Your task to perform on an android device: star an email in the gmail app Image 0: 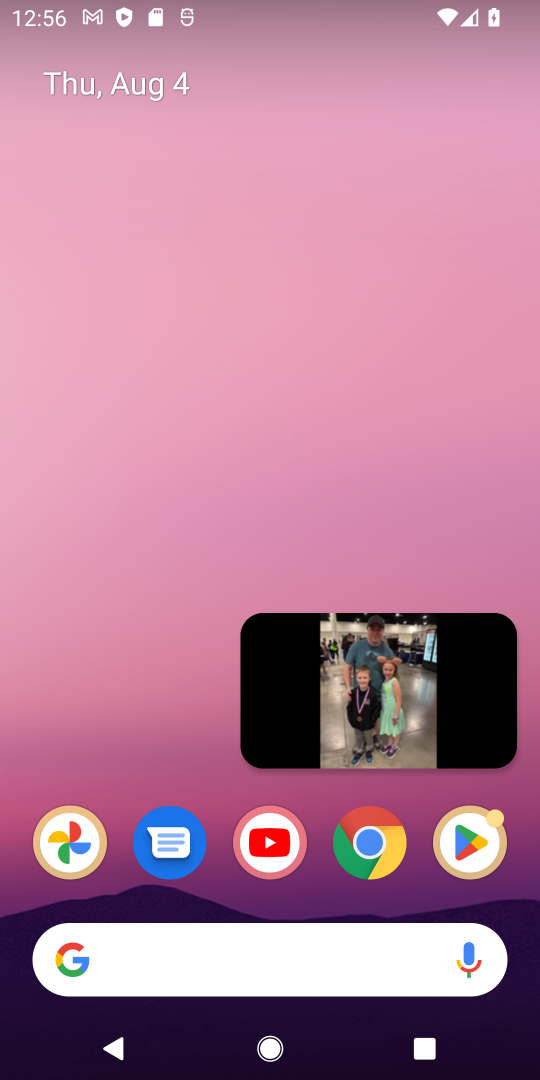
Step 0: drag from (126, 789) to (194, 33)
Your task to perform on an android device: star an email in the gmail app Image 1: 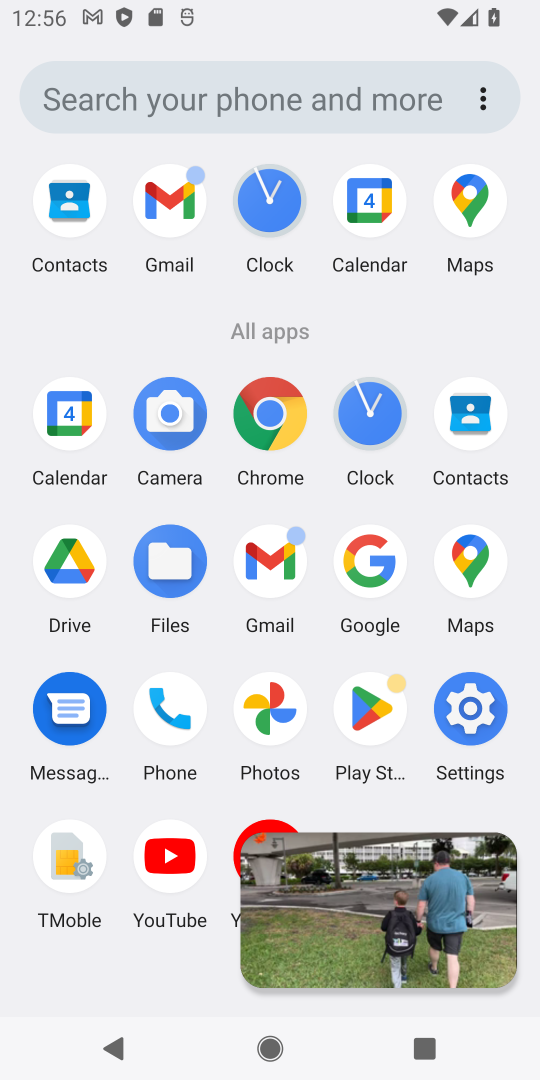
Step 1: click (177, 206)
Your task to perform on an android device: star an email in the gmail app Image 2: 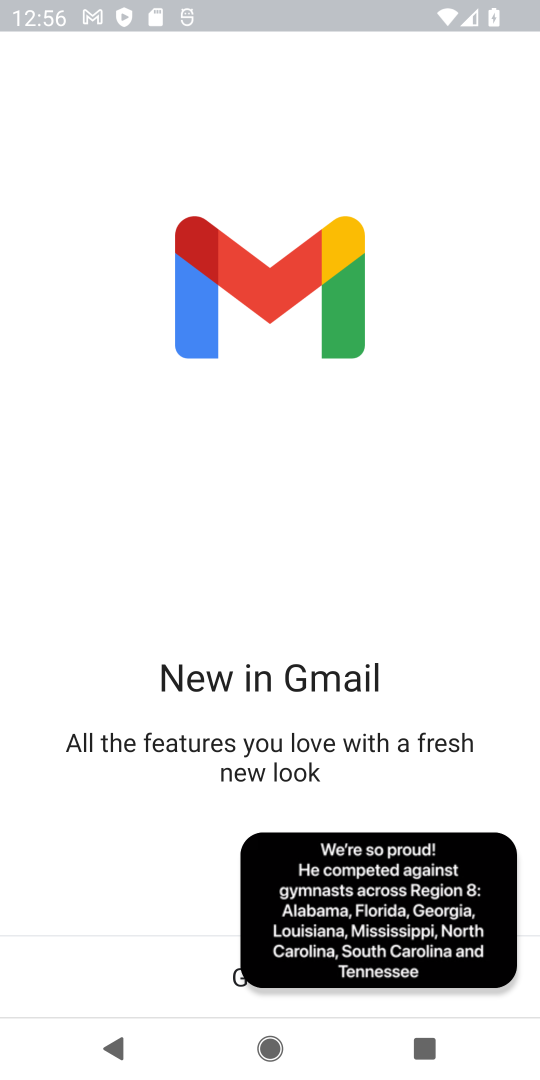
Step 2: click (59, 984)
Your task to perform on an android device: star an email in the gmail app Image 3: 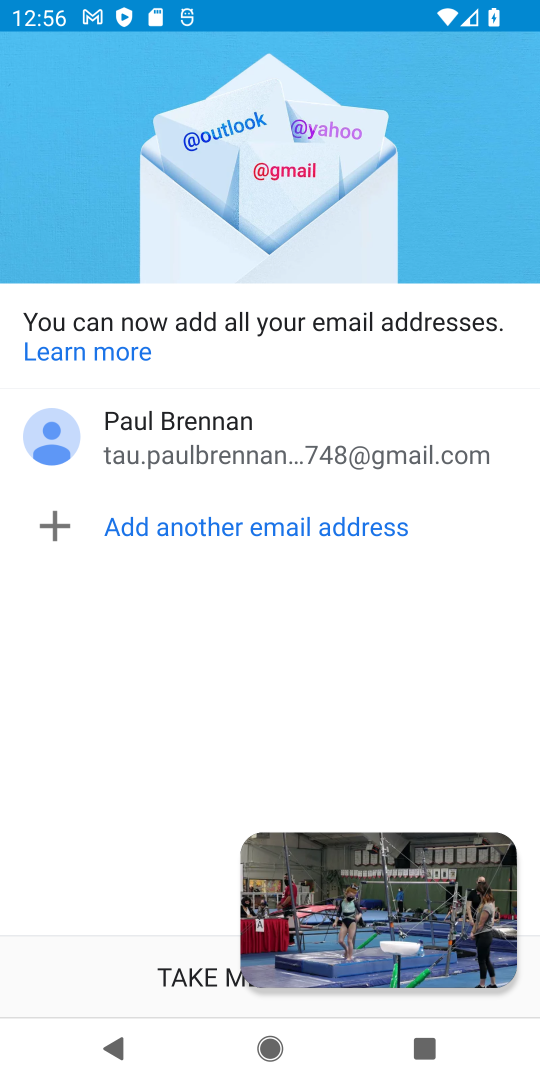
Step 3: click (136, 964)
Your task to perform on an android device: star an email in the gmail app Image 4: 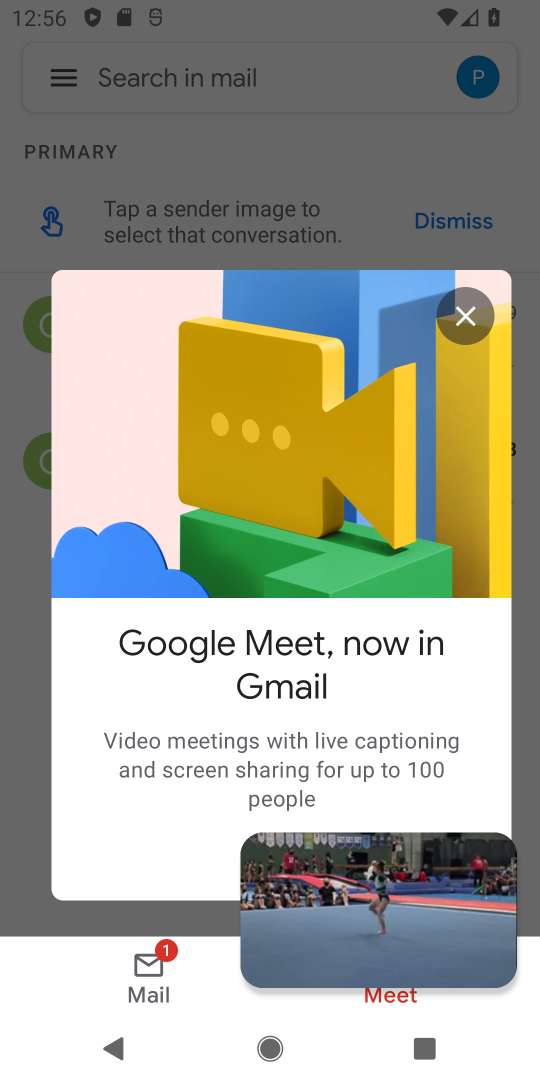
Step 4: click (469, 321)
Your task to perform on an android device: star an email in the gmail app Image 5: 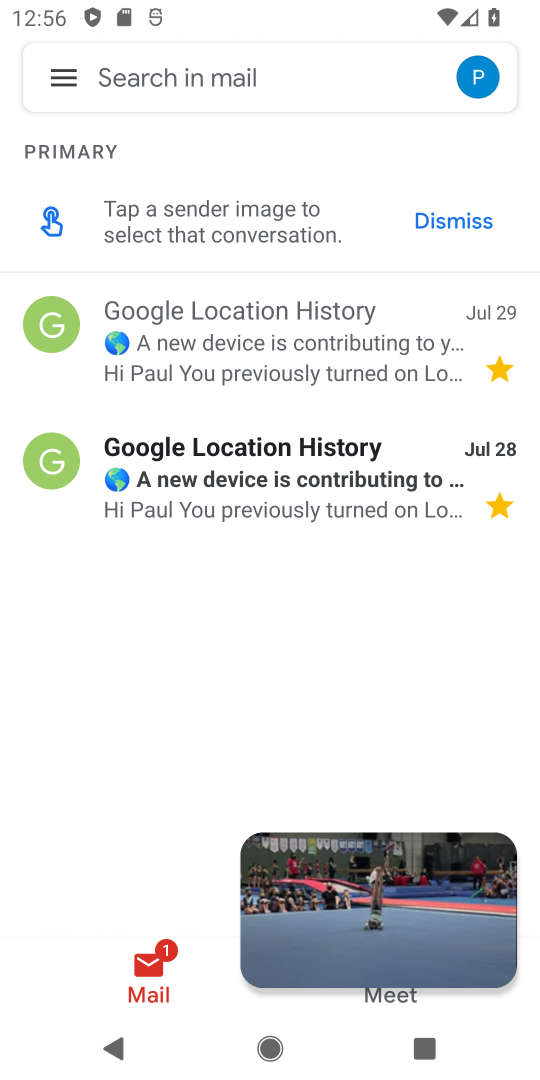
Step 5: click (63, 69)
Your task to perform on an android device: star an email in the gmail app Image 6: 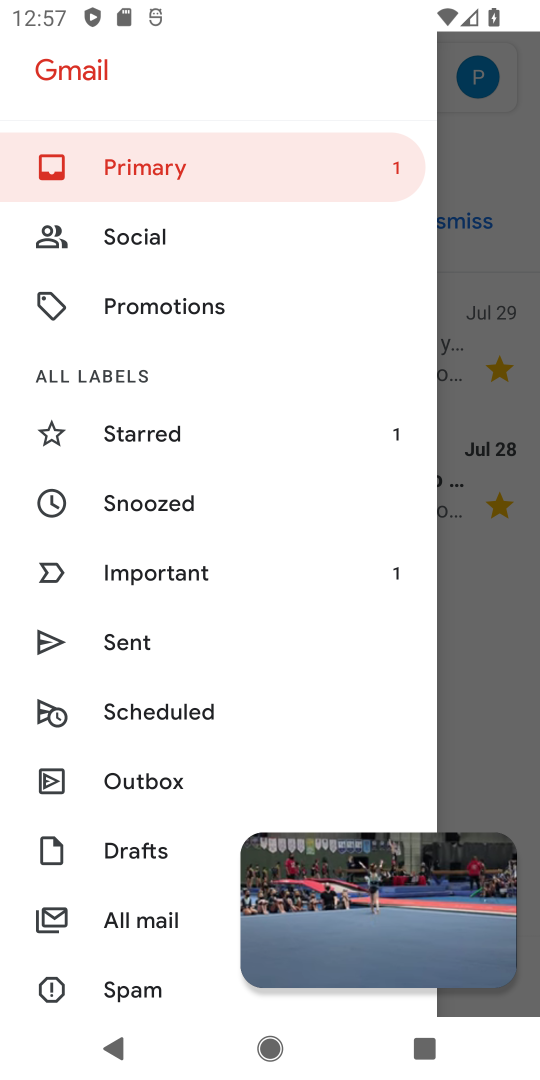
Step 6: click (125, 937)
Your task to perform on an android device: star an email in the gmail app Image 7: 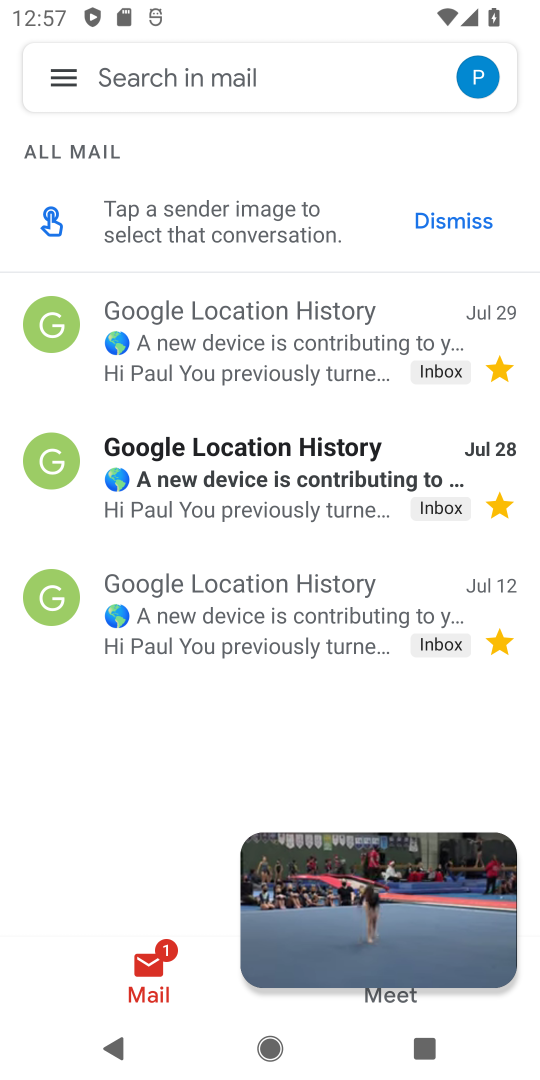
Step 7: task complete